Your task to perform on an android device: clear history in the chrome app Image 0: 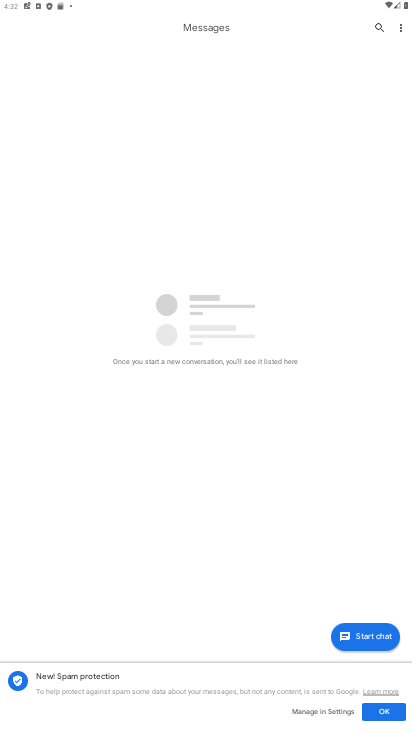
Step 0: press home button
Your task to perform on an android device: clear history in the chrome app Image 1: 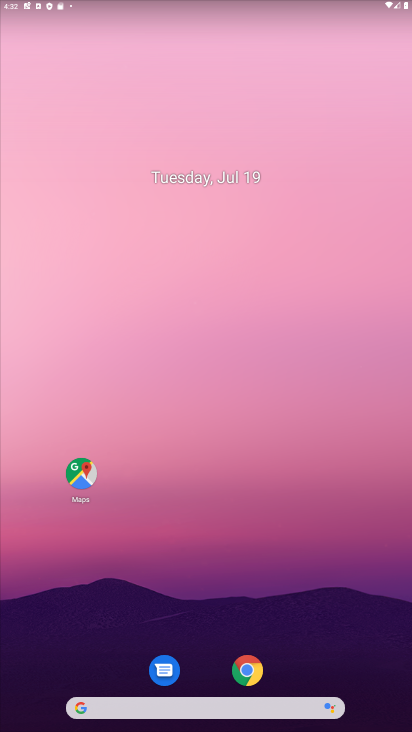
Step 1: drag from (291, 705) to (297, 79)
Your task to perform on an android device: clear history in the chrome app Image 2: 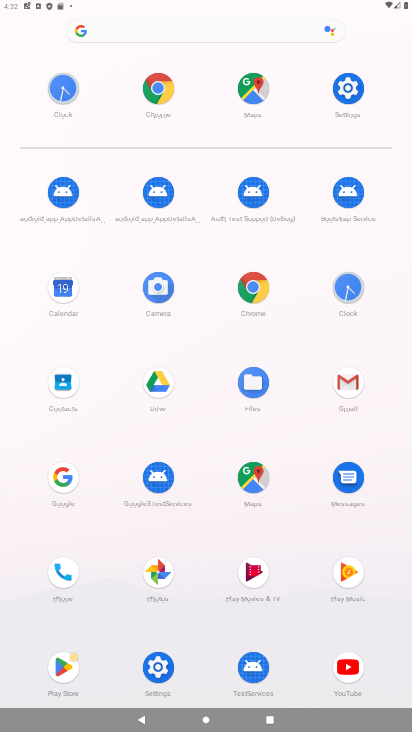
Step 2: click (255, 285)
Your task to perform on an android device: clear history in the chrome app Image 3: 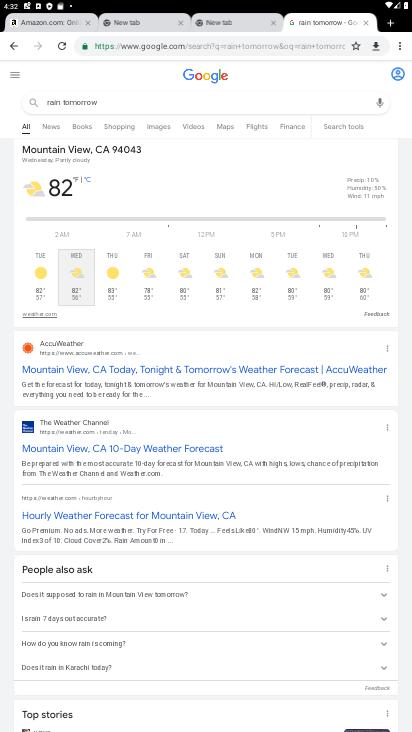
Step 3: drag from (394, 44) to (306, 283)
Your task to perform on an android device: clear history in the chrome app Image 4: 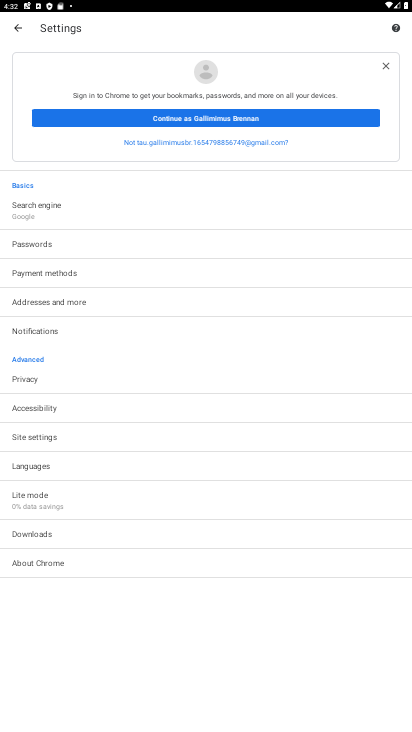
Step 4: click (59, 378)
Your task to perform on an android device: clear history in the chrome app Image 5: 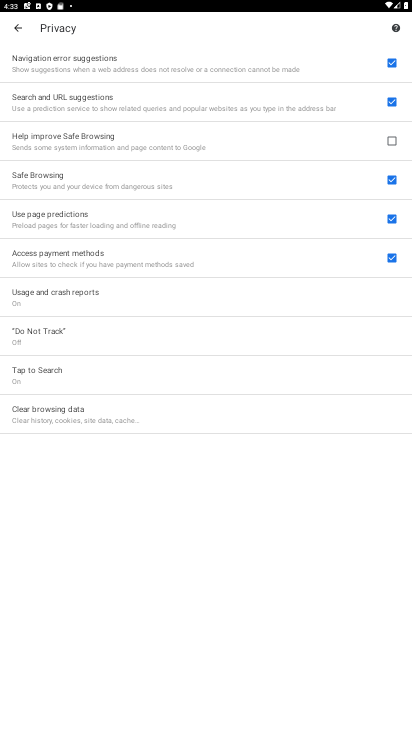
Step 5: click (59, 411)
Your task to perform on an android device: clear history in the chrome app Image 6: 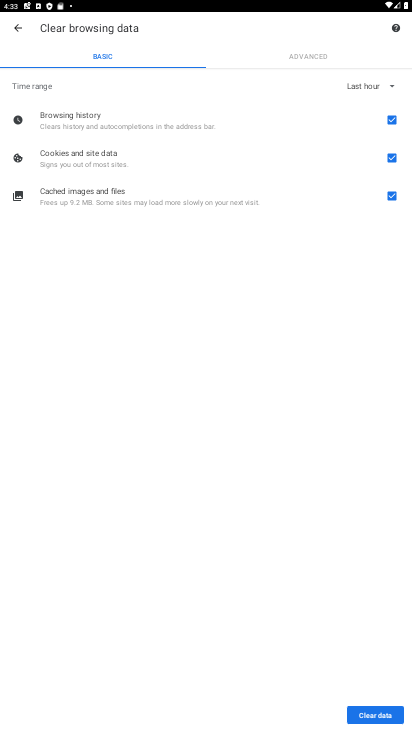
Step 6: click (374, 710)
Your task to perform on an android device: clear history in the chrome app Image 7: 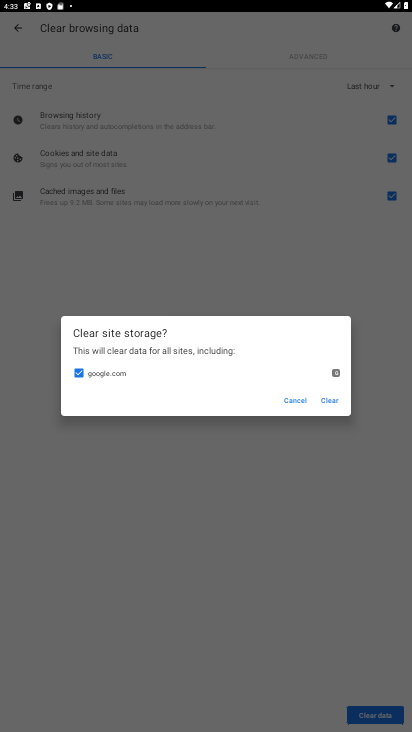
Step 7: click (333, 399)
Your task to perform on an android device: clear history in the chrome app Image 8: 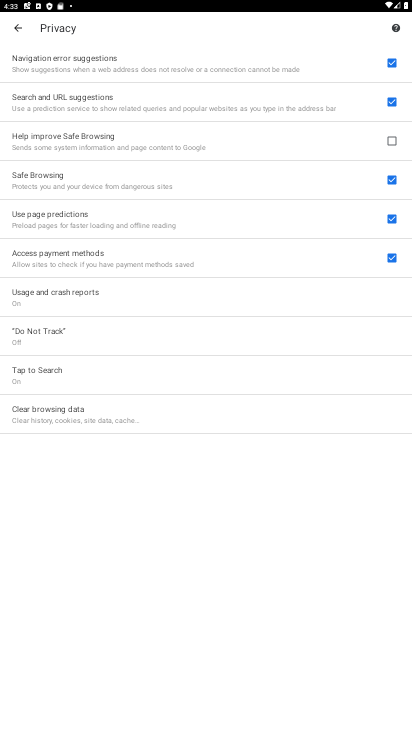
Step 8: task complete